Your task to perform on an android device: open chrome privacy settings Image 0: 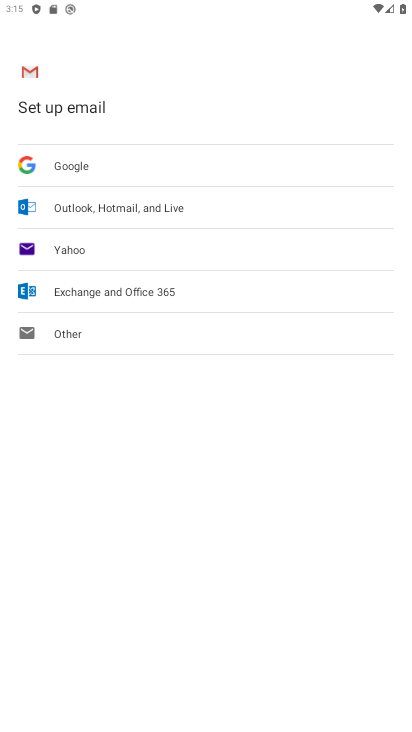
Step 0: press home button
Your task to perform on an android device: open chrome privacy settings Image 1: 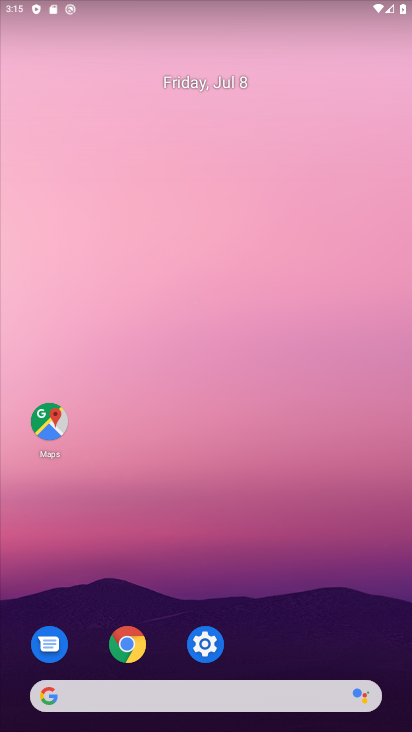
Step 1: click (130, 639)
Your task to perform on an android device: open chrome privacy settings Image 2: 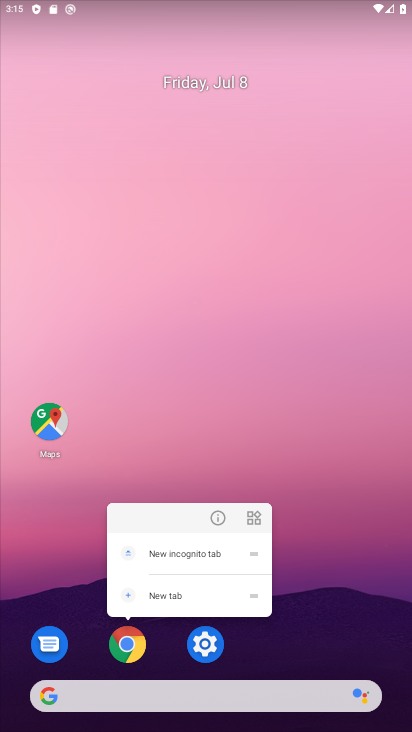
Step 2: click (130, 640)
Your task to perform on an android device: open chrome privacy settings Image 3: 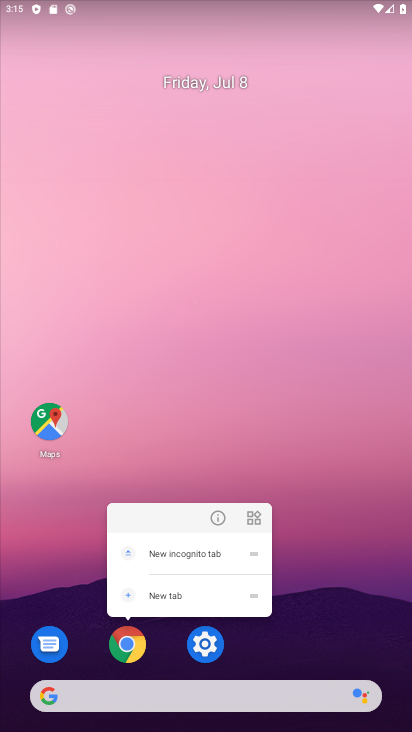
Step 3: click (137, 642)
Your task to perform on an android device: open chrome privacy settings Image 4: 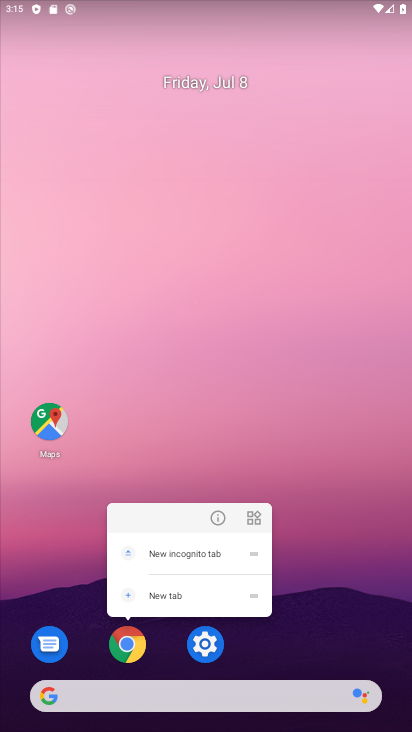
Step 4: click (126, 656)
Your task to perform on an android device: open chrome privacy settings Image 5: 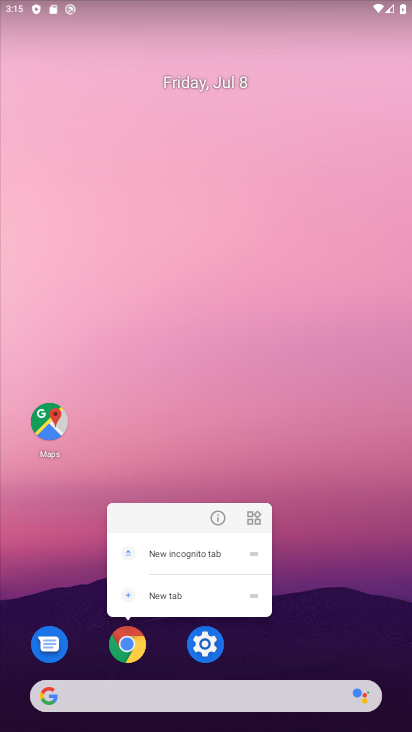
Step 5: click (126, 653)
Your task to perform on an android device: open chrome privacy settings Image 6: 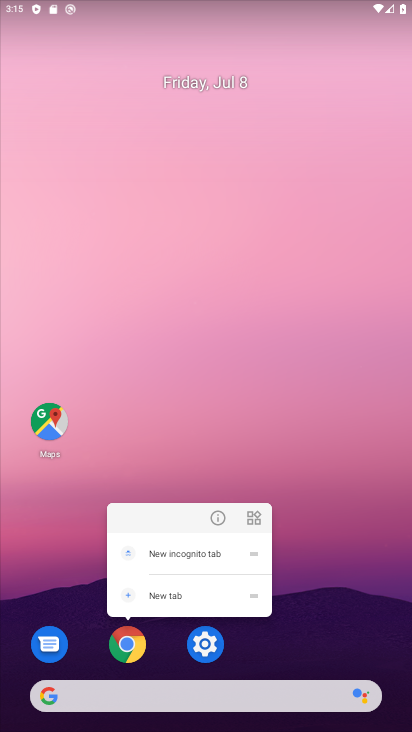
Step 6: task complete